Your task to perform on an android device: What's the price of the Samsung TV? Image 0: 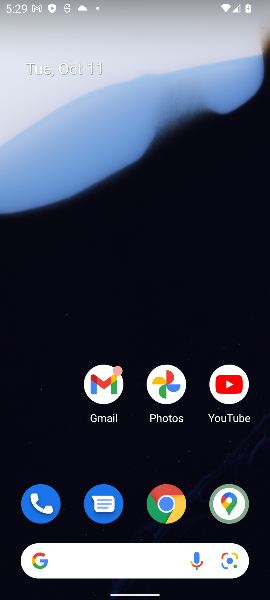
Step 0: click (100, 570)
Your task to perform on an android device: What's the price of the Samsung TV? Image 1: 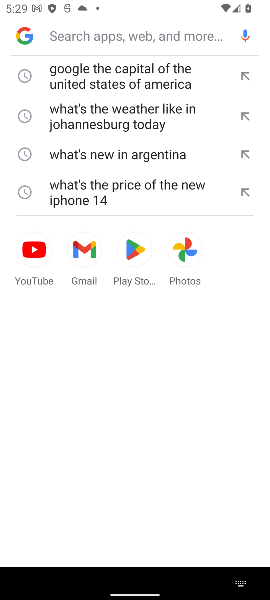
Step 1: click (109, 37)
Your task to perform on an android device: What's the price of the Samsung TV? Image 2: 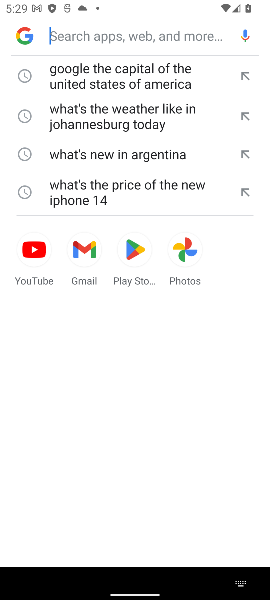
Step 2: type "What's the price of the Samsung TV?"
Your task to perform on an android device: What's the price of the Samsung TV? Image 3: 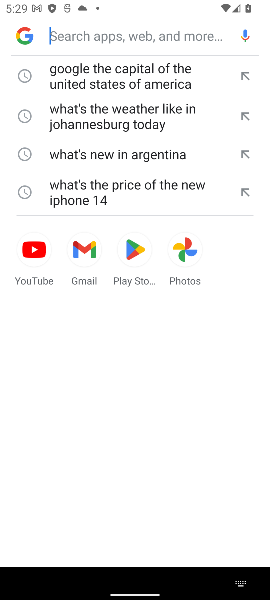
Step 3: click (58, 489)
Your task to perform on an android device: What's the price of the Samsung TV? Image 4: 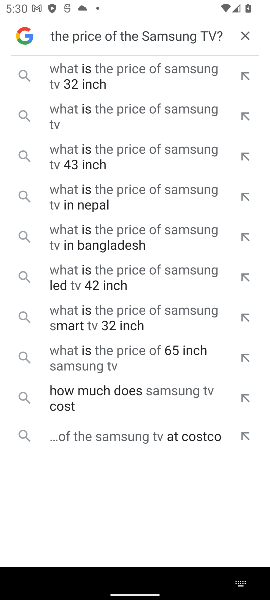
Step 4: click (118, 81)
Your task to perform on an android device: What's the price of the Samsung TV? Image 5: 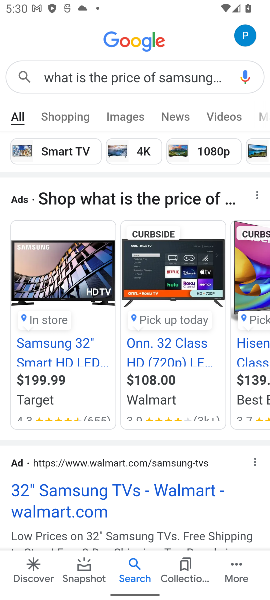
Step 5: task complete